Your task to perform on an android device: Open Yahoo.com Image 0: 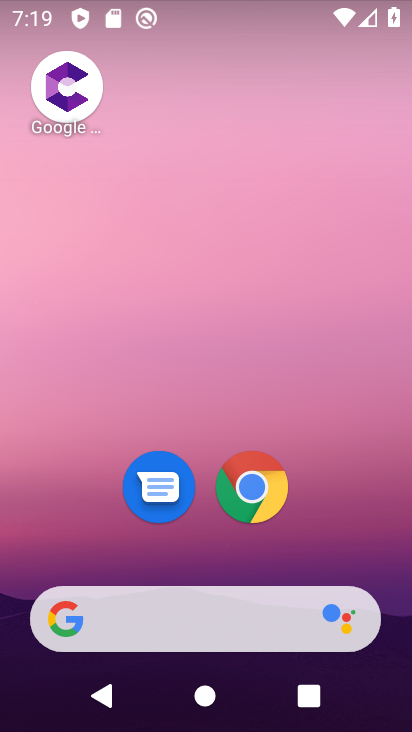
Step 0: drag from (355, 543) to (311, 68)
Your task to perform on an android device: Open Yahoo.com Image 1: 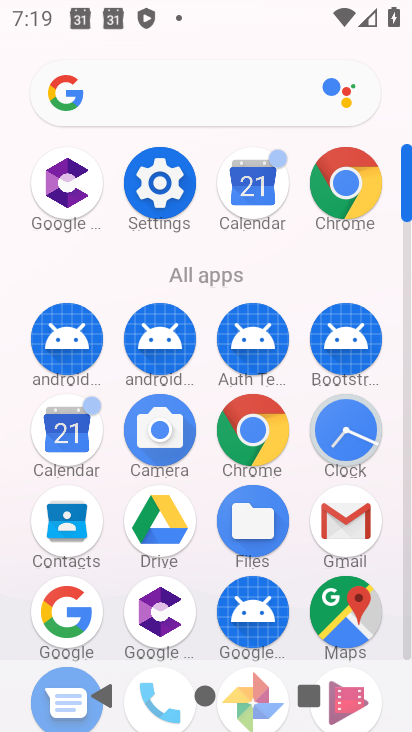
Step 1: click (242, 451)
Your task to perform on an android device: Open Yahoo.com Image 2: 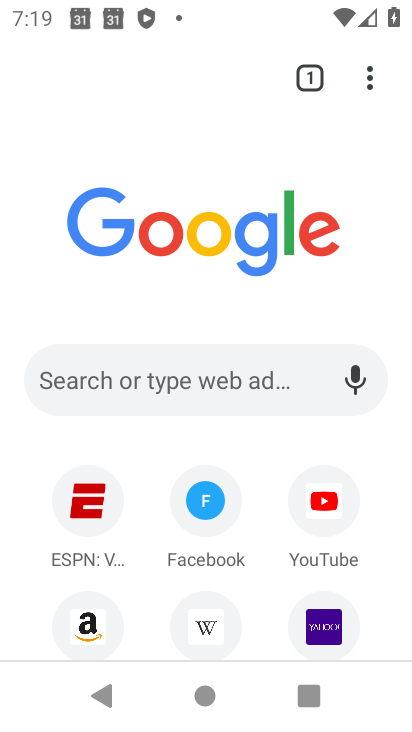
Step 2: click (314, 619)
Your task to perform on an android device: Open Yahoo.com Image 3: 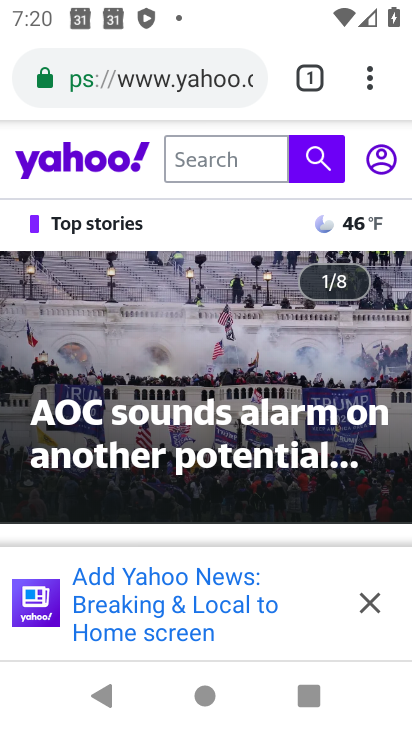
Step 3: task complete